Your task to perform on an android device: Open calendar and show me the third week of next month Image 0: 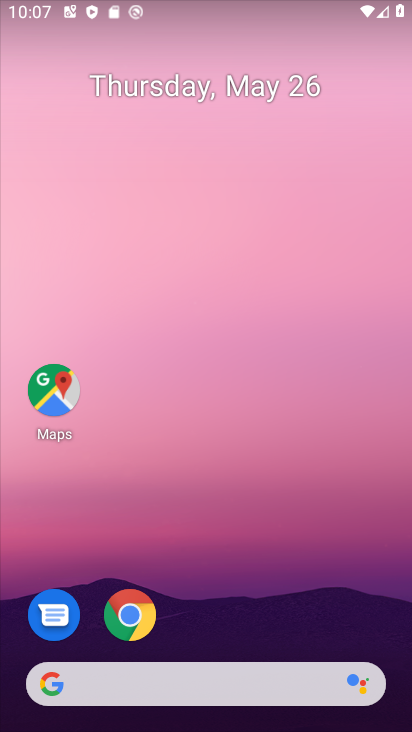
Step 0: drag from (244, 644) to (390, 14)
Your task to perform on an android device: Open calendar and show me the third week of next month Image 1: 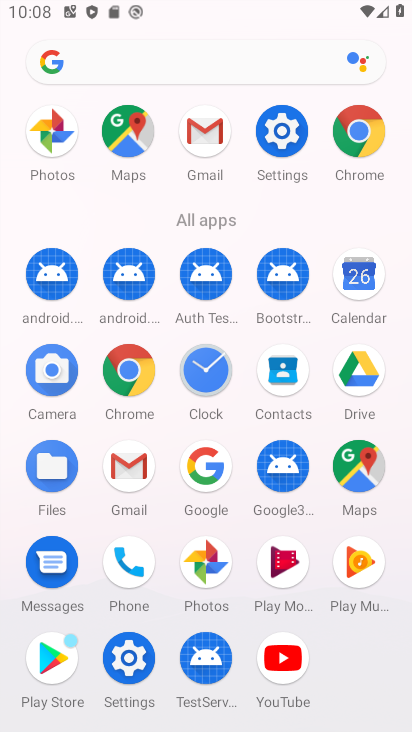
Step 1: click (361, 278)
Your task to perform on an android device: Open calendar and show me the third week of next month Image 2: 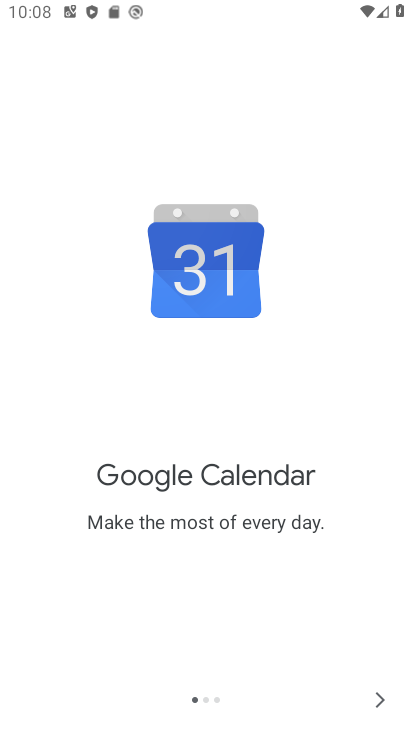
Step 2: click (385, 693)
Your task to perform on an android device: Open calendar and show me the third week of next month Image 3: 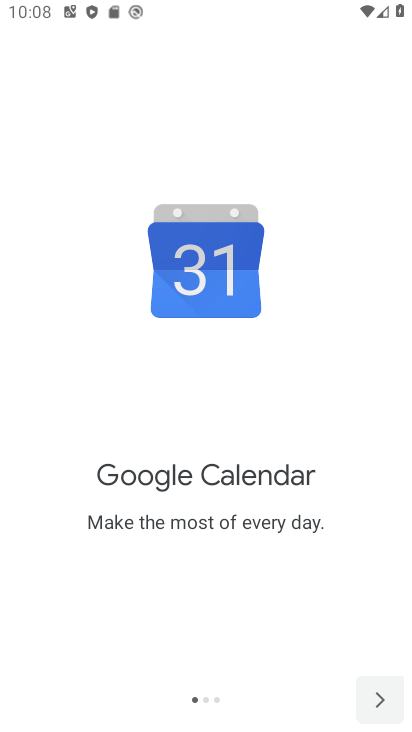
Step 3: click (385, 694)
Your task to perform on an android device: Open calendar and show me the third week of next month Image 4: 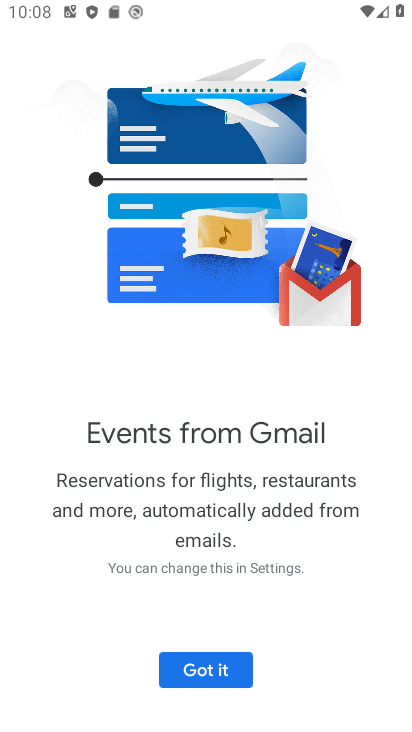
Step 4: click (189, 675)
Your task to perform on an android device: Open calendar and show me the third week of next month Image 5: 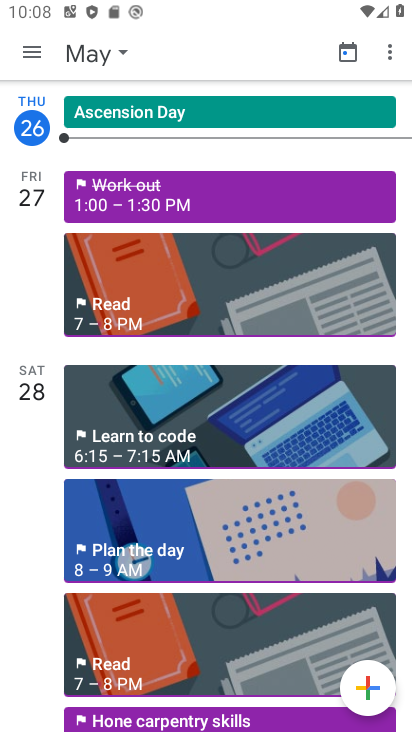
Step 5: click (117, 57)
Your task to perform on an android device: Open calendar and show me the third week of next month Image 6: 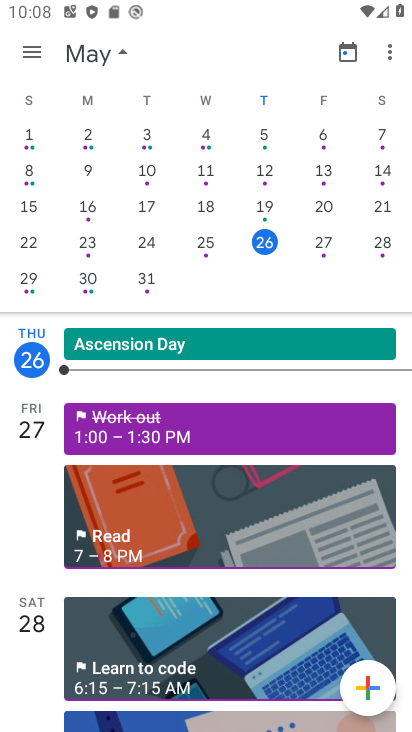
Step 6: drag from (330, 220) to (45, 211)
Your task to perform on an android device: Open calendar and show me the third week of next month Image 7: 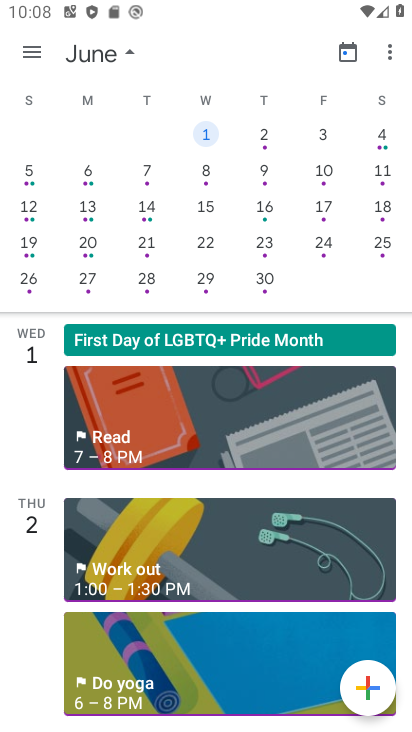
Step 7: click (202, 199)
Your task to perform on an android device: Open calendar and show me the third week of next month Image 8: 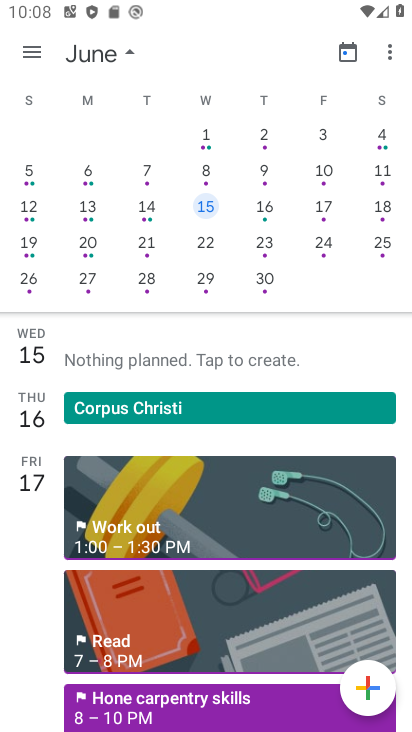
Step 8: task complete